Your task to perform on an android device: Go to Wikipedia Image 0: 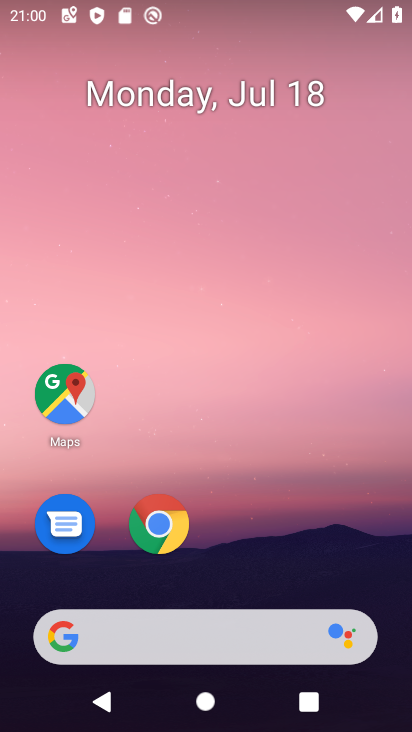
Step 0: click (171, 530)
Your task to perform on an android device: Go to Wikipedia Image 1: 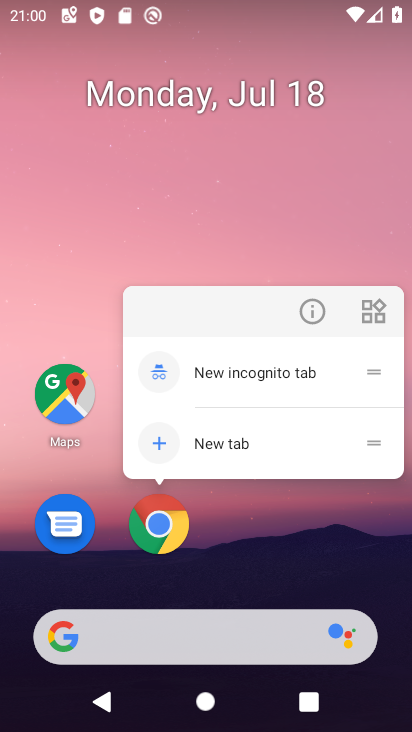
Step 1: click (168, 528)
Your task to perform on an android device: Go to Wikipedia Image 2: 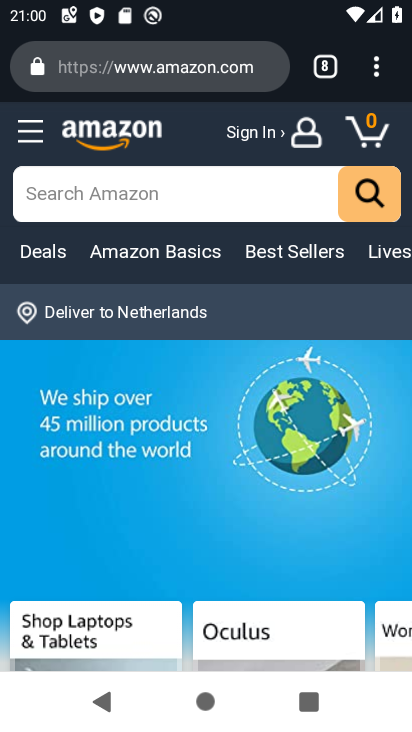
Step 2: click (375, 72)
Your task to perform on an android device: Go to Wikipedia Image 3: 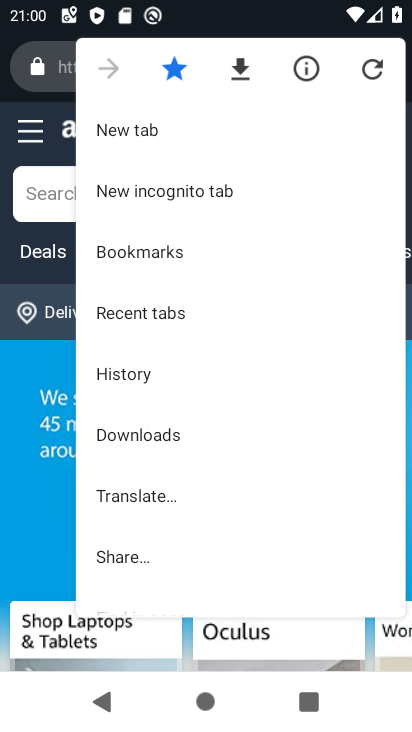
Step 3: click (261, 127)
Your task to perform on an android device: Go to Wikipedia Image 4: 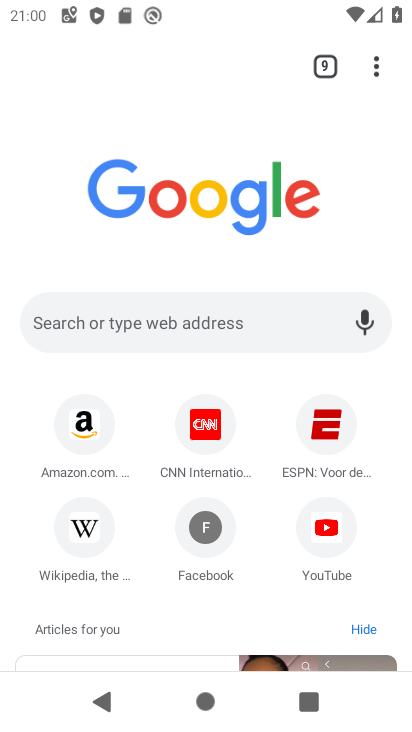
Step 4: click (100, 511)
Your task to perform on an android device: Go to Wikipedia Image 5: 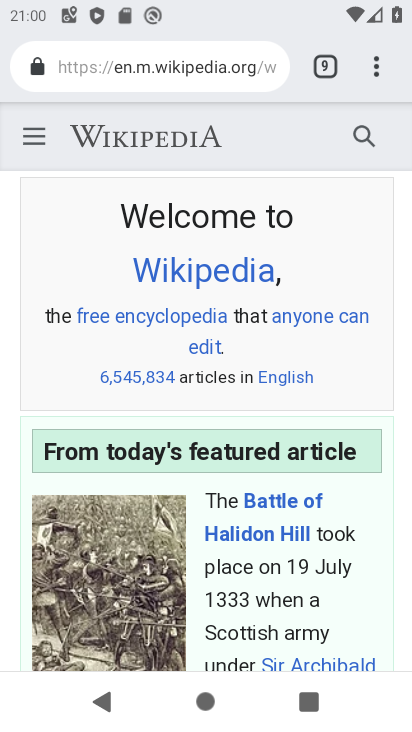
Step 5: task complete